Your task to perform on an android device: delete the emails in spam in the gmail app Image 0: 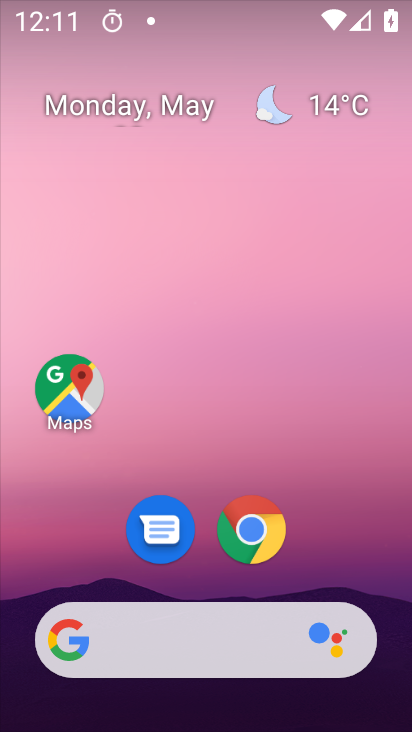
Step 0: drag from (382, 594) to (364, 207)
Your task to perform on an android device: delete the emails in spam in the gmail app Image 1: 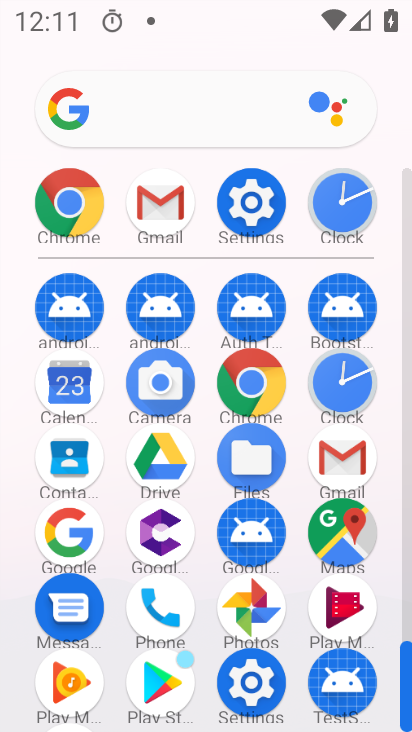
Step 1: click (350, 467)
Your task to perform on an android device: delete the emails in spam in the gmail app Image 2: 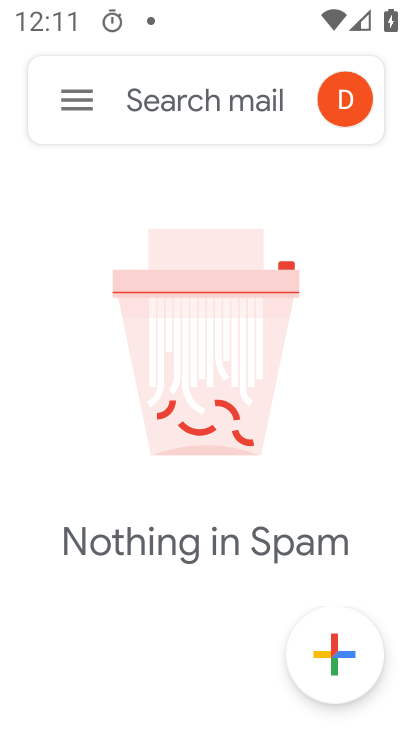
Step 2: task complete